Your task to perform on an android device: Do I have any events this weekend? Image 0: 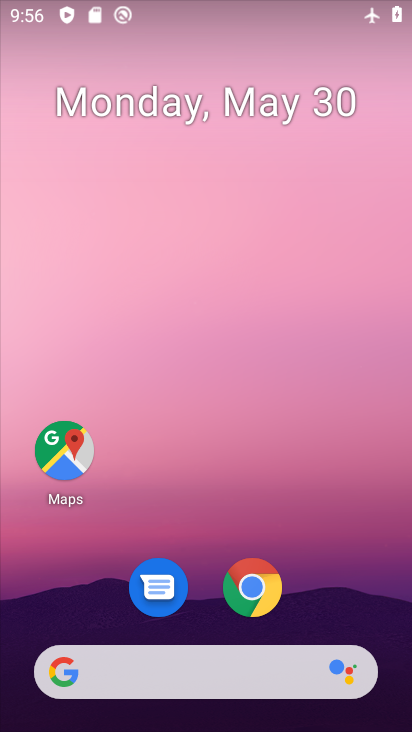
Step 0: drag from (322, 571) to (243, 61)
Your task to perform on an android device: Do I have any events this weekend? Image 1: 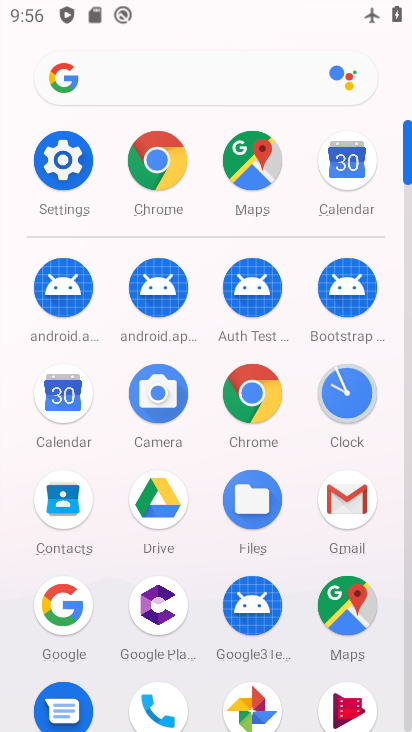
Step 1: drag from (2, 616) to (24, 201)
Your task to perform on an android device: Do I have any events this weekend? Image 2: 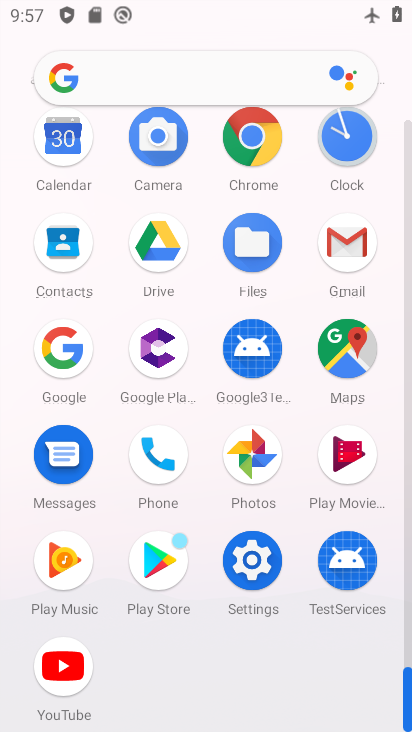
Step 2: click (61, 134)
Your task to perform on an android device: Do I have any events this weekend? Image 3: 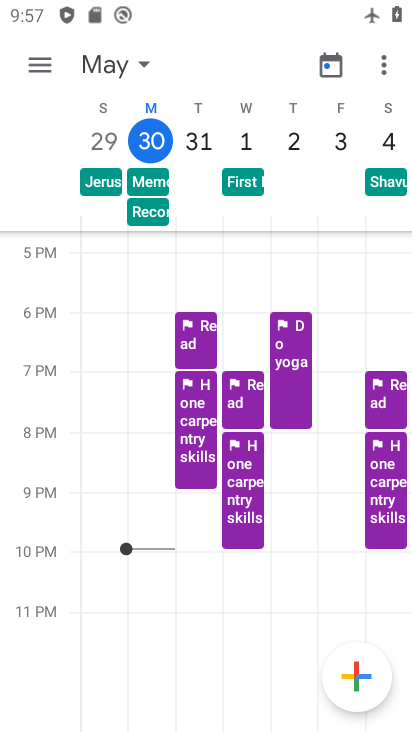
Step 3: click (36, 67)
Your task to perform on an android device: Do I have any events this weekend? Image 4: 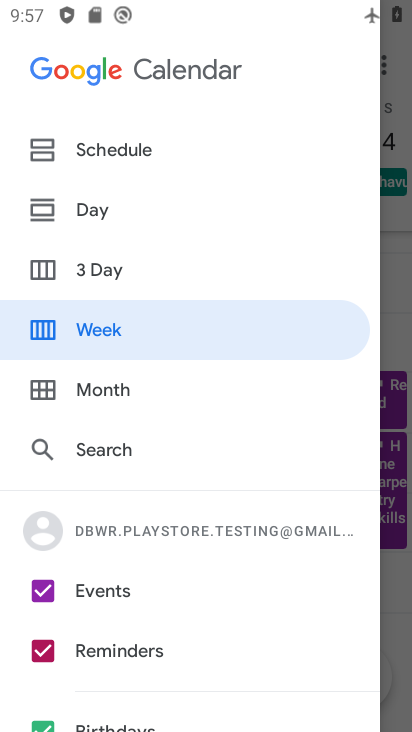
Step 4: click (132, 339)
Your task to perform on an android device: Do I have any events this weekend? Image 5: 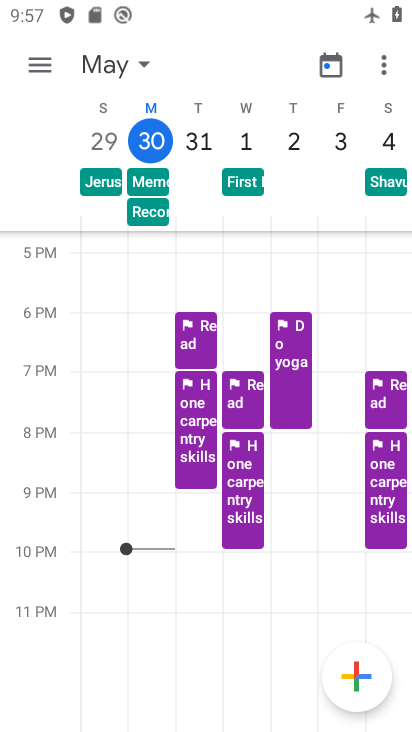
Step 5: task complete